Your task to perform on an android device: see tabs open on other devices in the chrome app Image 0: 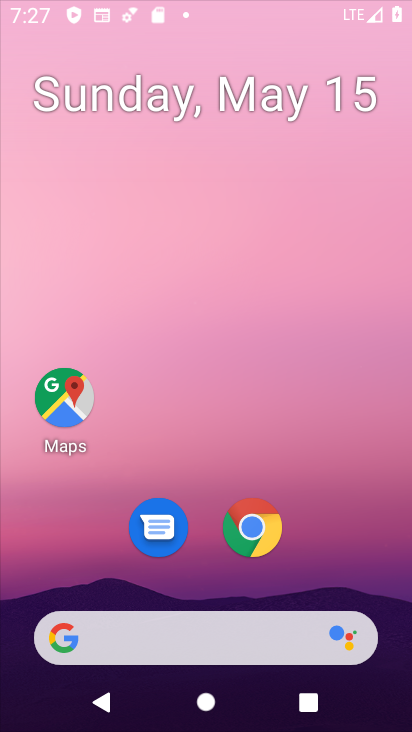
Step 0: drag from (367, 551) to (348, 38)
Your task to perform on an android device: see tabs open on other devices in the chrome app Image 1: 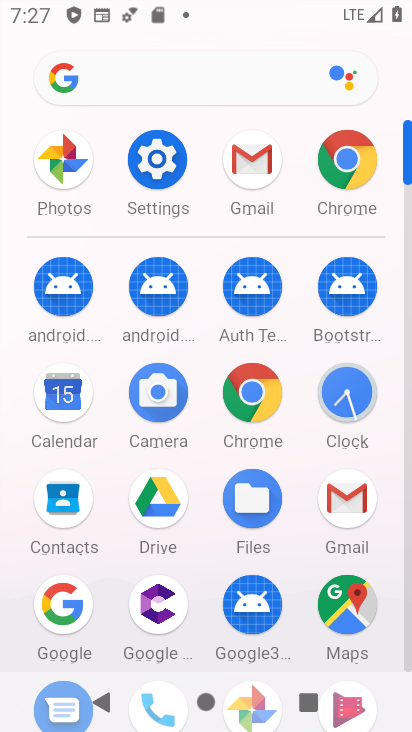
Step 1: click (356, 191)
Your task to perform on an android device: see tabs open on other devices in the chrome app Image 2: 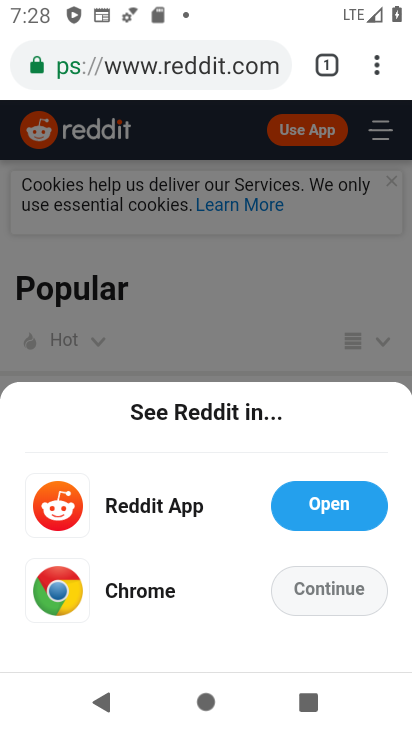
Step 2: task complete